Your task to perform on an android device: Open the web browser Image 0: 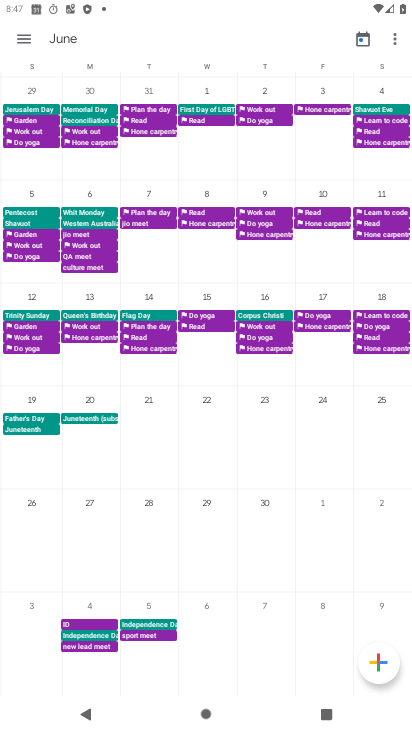
Step 0: press home button
Your task to perform on an android device: Open the web browser Image 1: 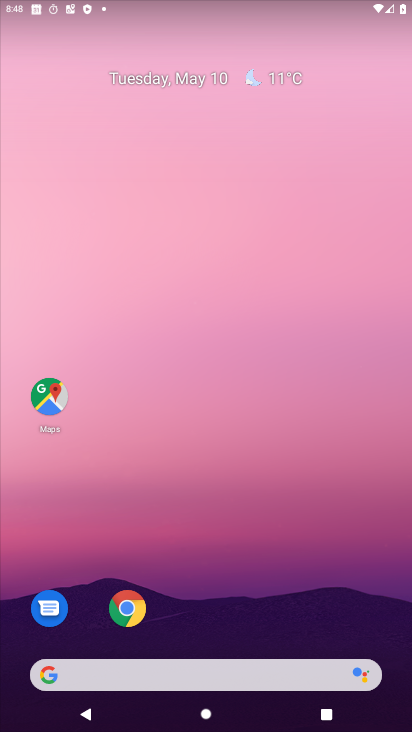
Step 1: click (117, 616)
Your task to perform on an android device: Open the web browser Image 2: 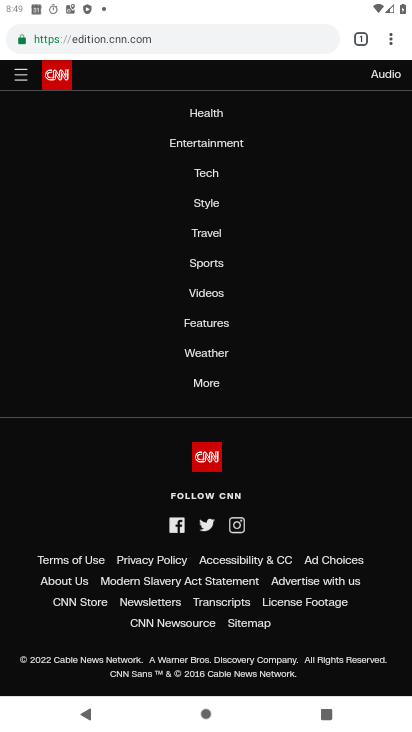
Step 2: press home button
Your task to perform on an android device: Open the web browser Image 3: 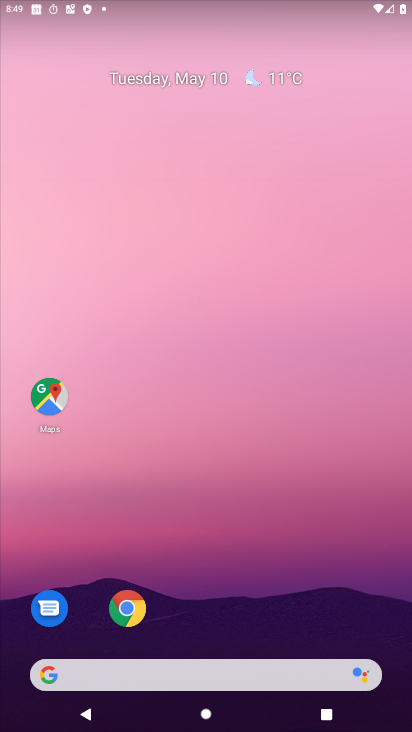
Step 3: click (107, 626)
Your task to perform on an android device: Open the web browser Image 4: 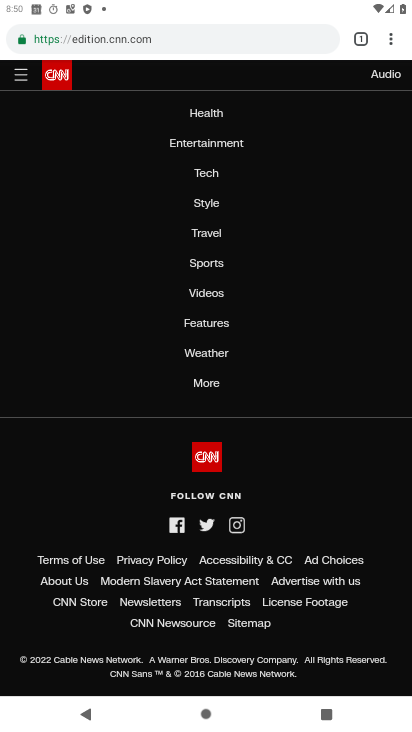
Step 4: task complete